Your task to perform on an android device: Go to battery settings Image 0: 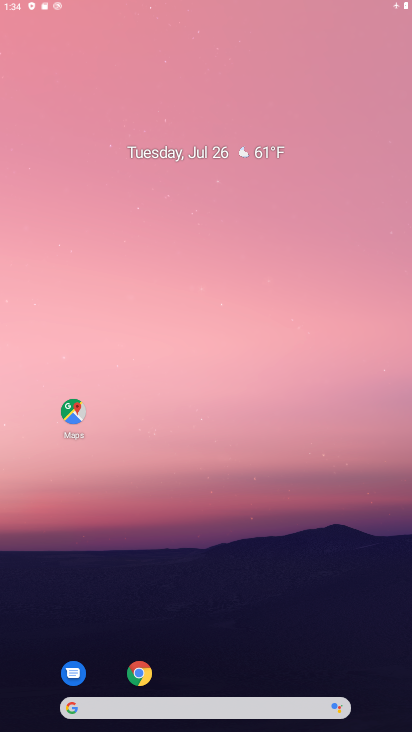
Step 0: drag from (199, 637) to (226, 74)
Your task to perform on an android device: Go to battery settings Image 1: 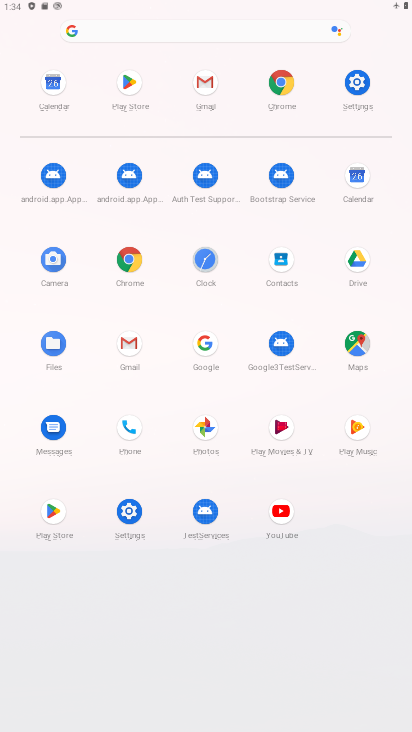
Step 1: click (356, 77)
Your task to perform on an android device: Go to battery settings Image 2: 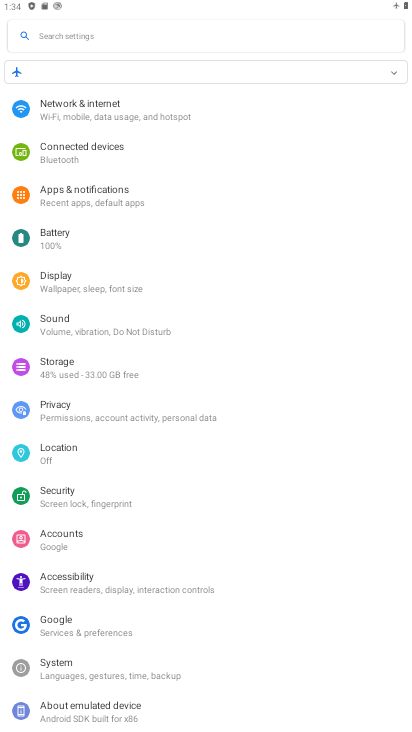
Step 2: click (56, 240)
Your task to perform on an android device: Go to battery settings Image 3: 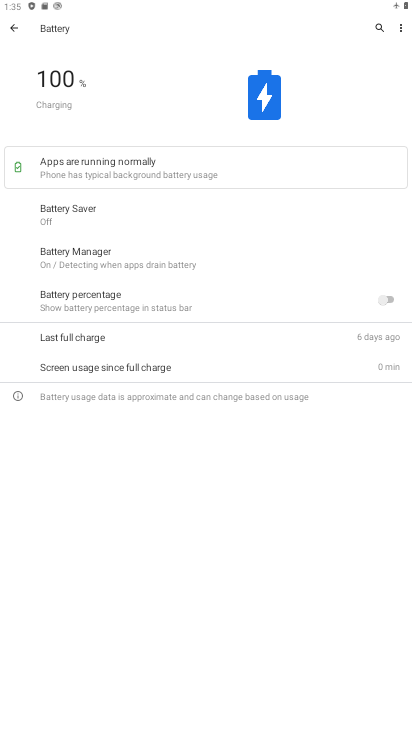
Step 3: task complete